Your task to perform on an android device: turn on bluetooth scan Image 0: 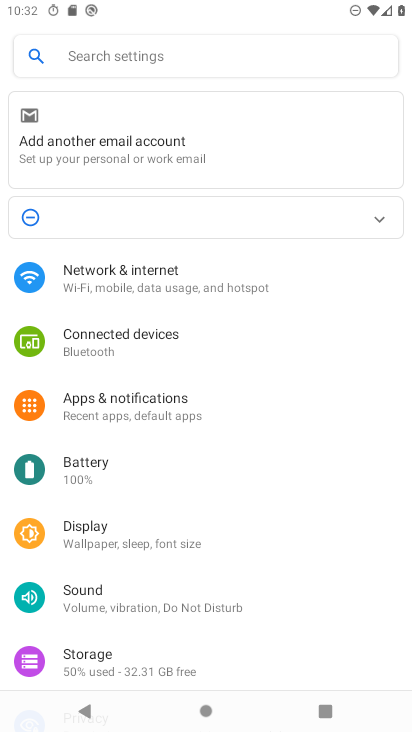
Step 0: drag from (344, 657) to (314, 362)
Your task to perform on an android device: turn on bluetooth scan Image 1: 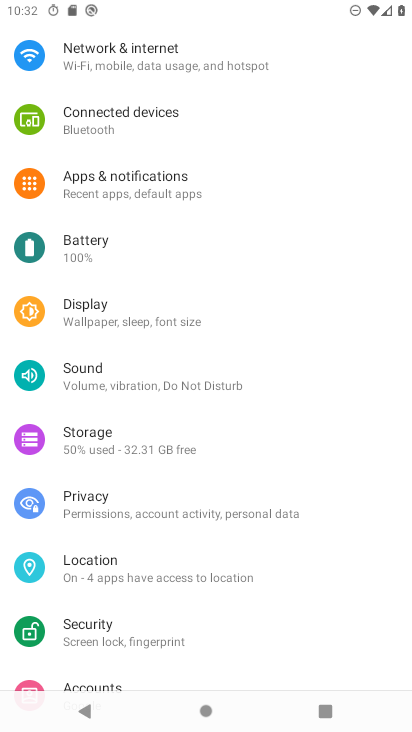
Step 1: click (107, 564)
Your task to perform on an android device: turn on bluetooth scan Image 2: 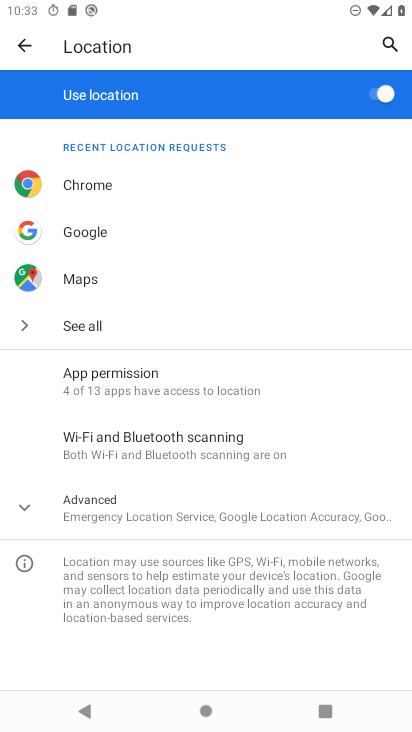
Step 2: click (118, 444)
Your task to perform on an android device: turn on bluetooth scan Image 3: 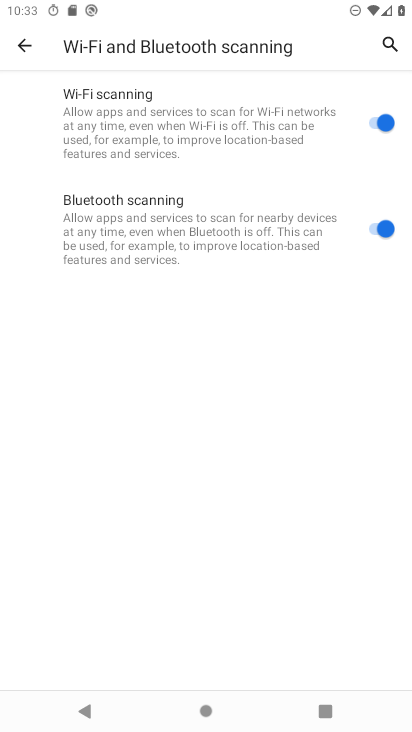
Step 3: task complete